Your task to perform on an android device: check battery use Image 0: 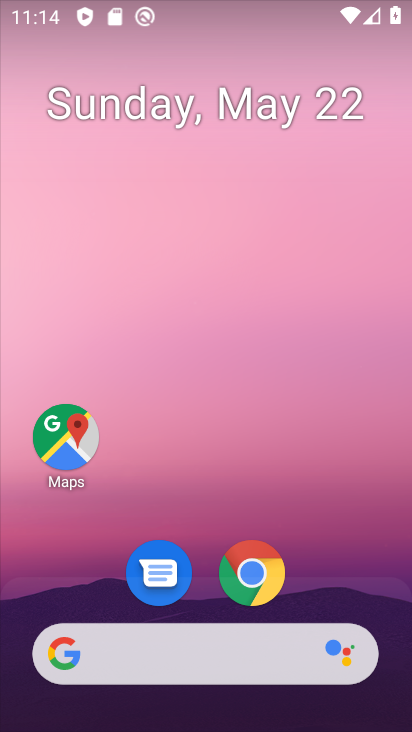
Step 0: drag from (207, 560) to (250, 3)
Your task to perform on an android device: check battery use Image 1: 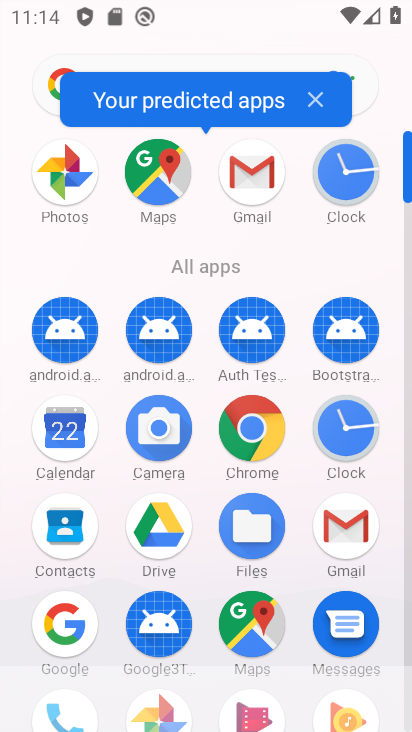
Step 1: drag from (174, 476) to (197, 146)
Your task to perform on an android device: check battery use Image 2: 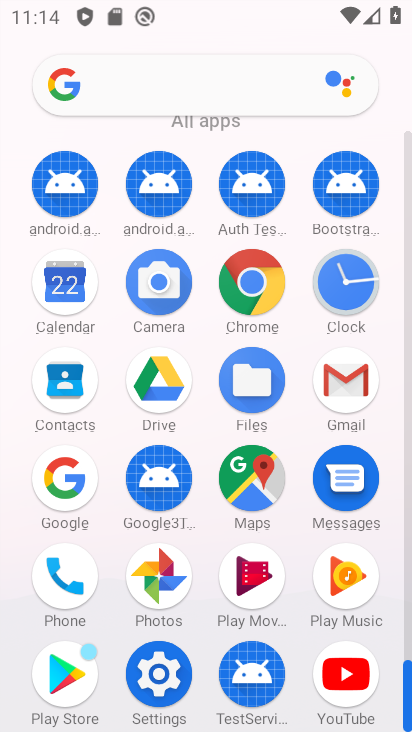
Step 2: click (170, 669)
Your task to perform on an android device: check battery use Image 3: 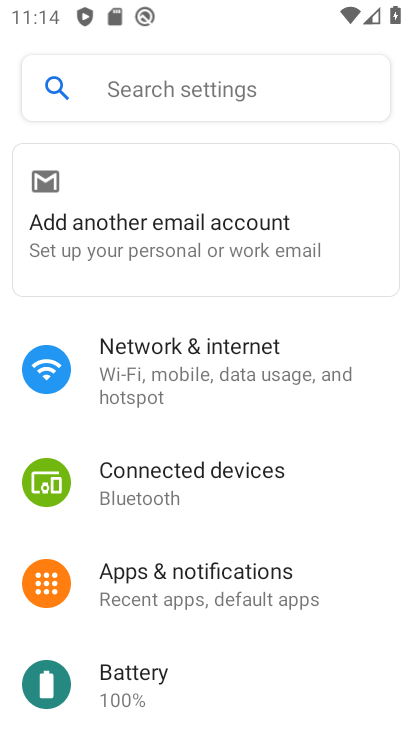
Step 3: click (184, 672)
Your task to perform on an android device: check battery use Image 4: 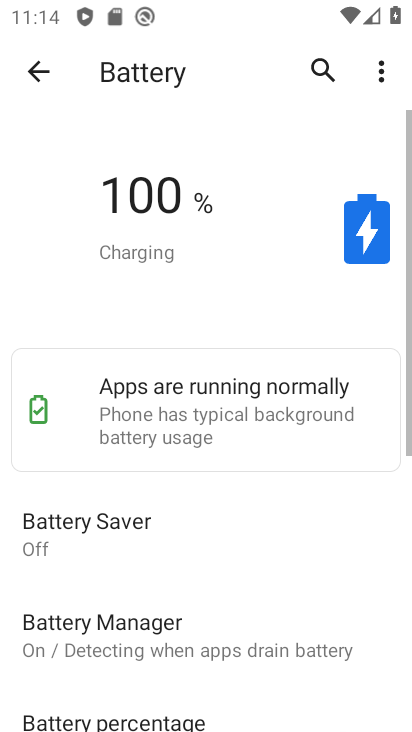
Step 4: click (389, 71)
Your task to perform on an android device: check battery use Image 5: 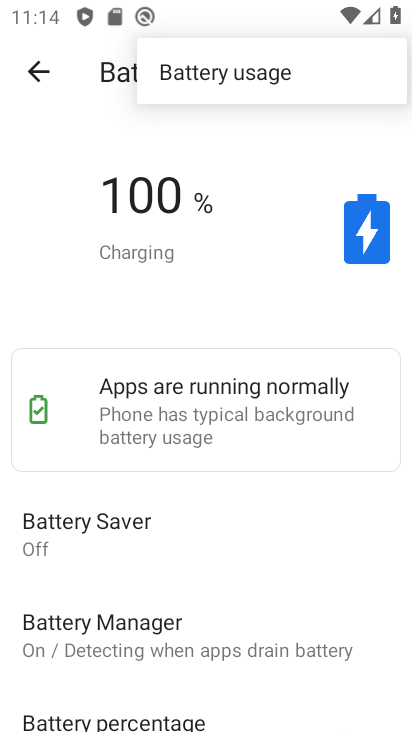
Step 5: click (257, 80)
Your task to perform on an android device: check battery use Image 6: 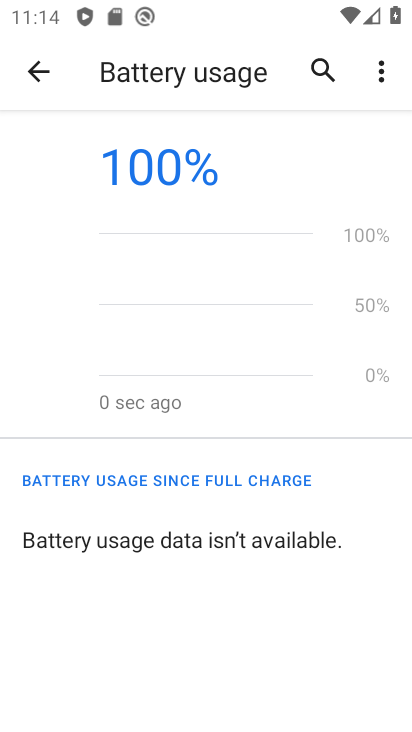
Step 6: task complete